Your task to perform on an android device: Go to battery settings Image 0: 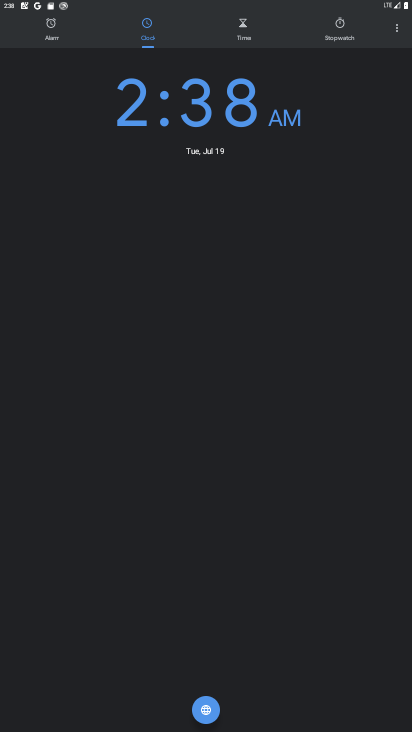
Step 0: press home button
Your task to perform on an android device: Go to battery settings Image 1: 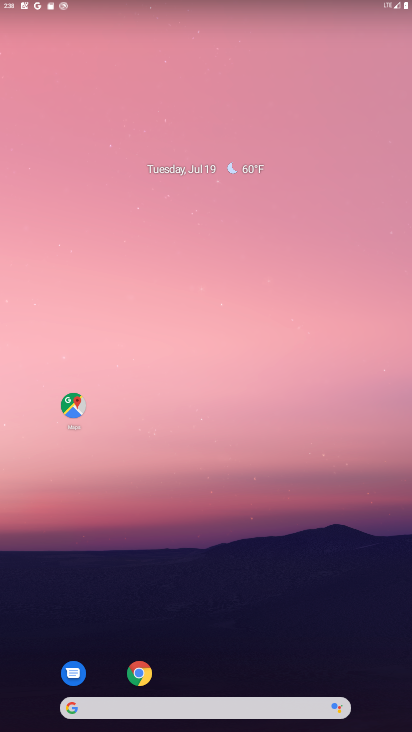
Step 1: drag from (227, 723) to (182, 242)
Your task to perform on an android device: Go to battery settings Image 2: 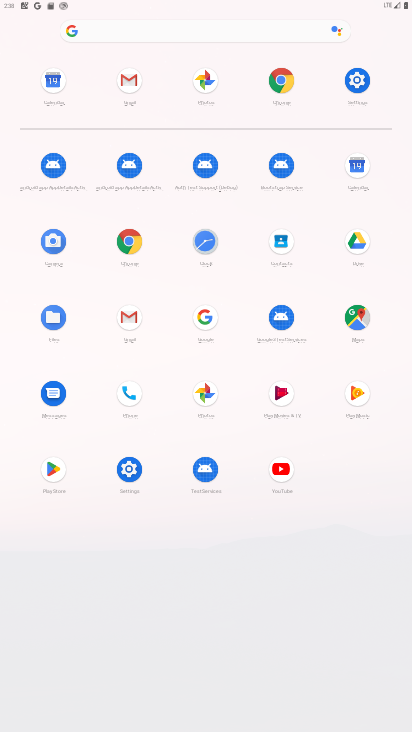
Step 2: click (351, 90)
Your task to perform on an android device: Go to battery settings Image 3: 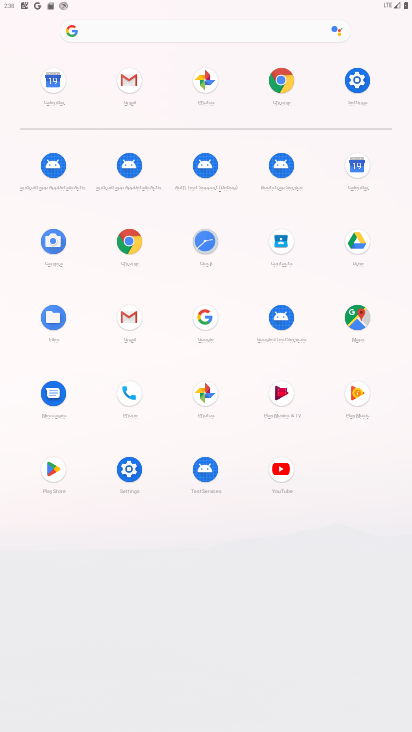
Step 3: click (351, 90)
Your task to perform on an android device: Go to battery settings Image 4: 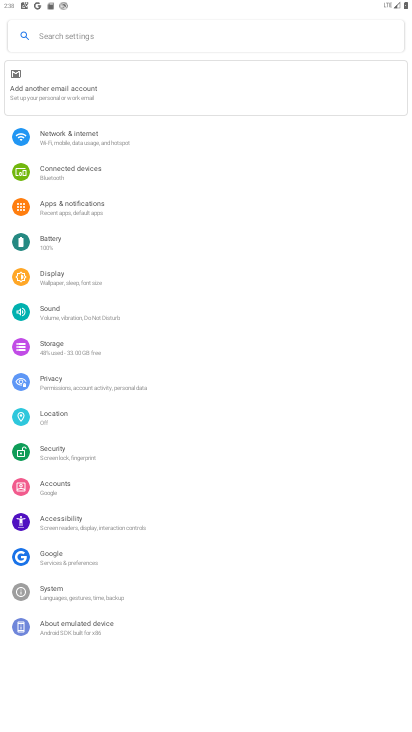
Step 4: click (48, 245)
Your task to perform on an android device: Go to battery settings Image 5: 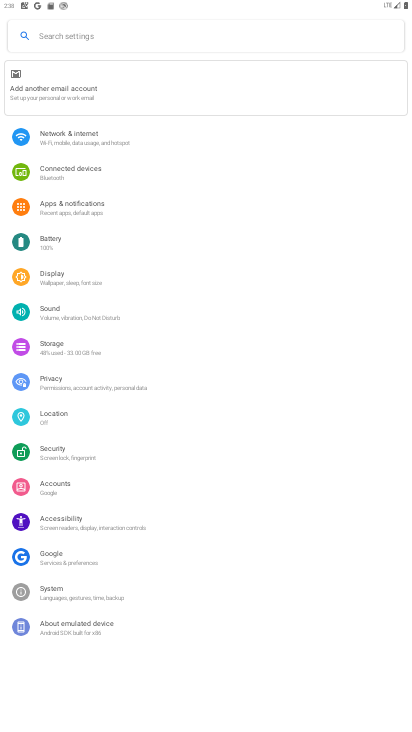
Step 5: click (48, 245)
Your task to perform on an android device: Go to battery settings Image 6: 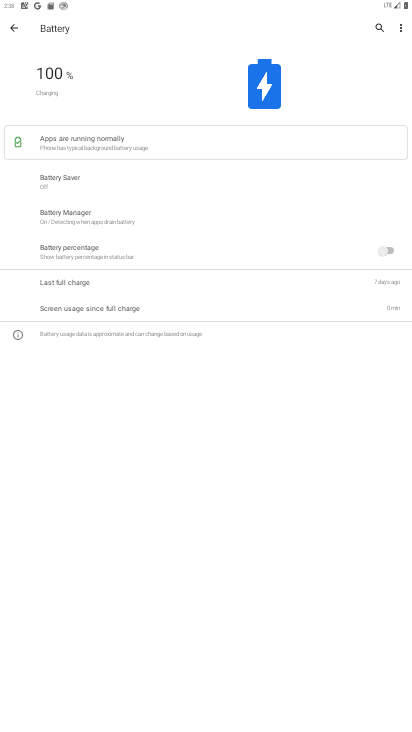
Step 6: task complete